Your task to perform on an android device: Open Android settings Image 0: 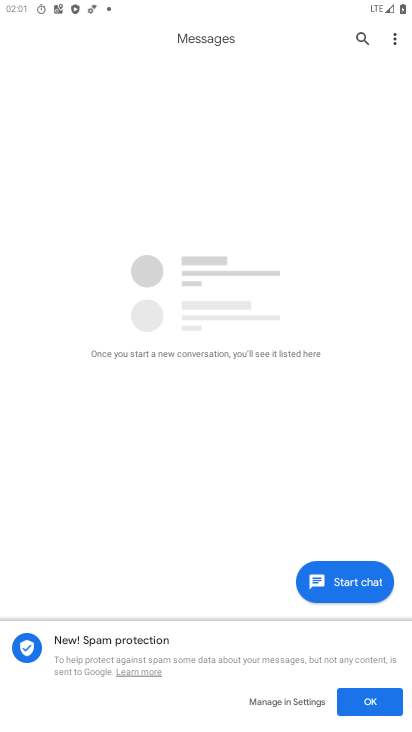
Step 0: press home button
Your task to perform on an android device: Open Android settings Image 1: 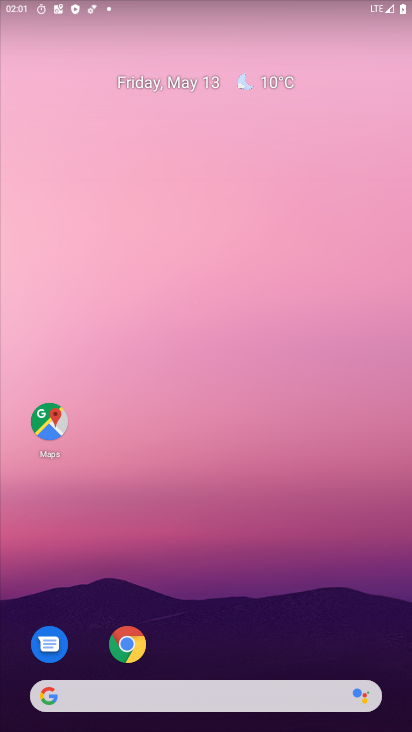
Step 1: drag from (230, 683) to (278, 101)
Your task to perform on an android device: Open Android settings Image 2: 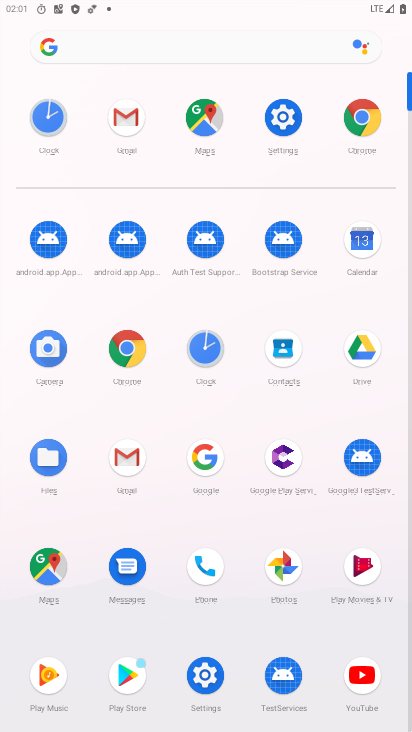
Step 2: click (283, 126)
Your task to perform on an android device: Open Android settings Image 3: 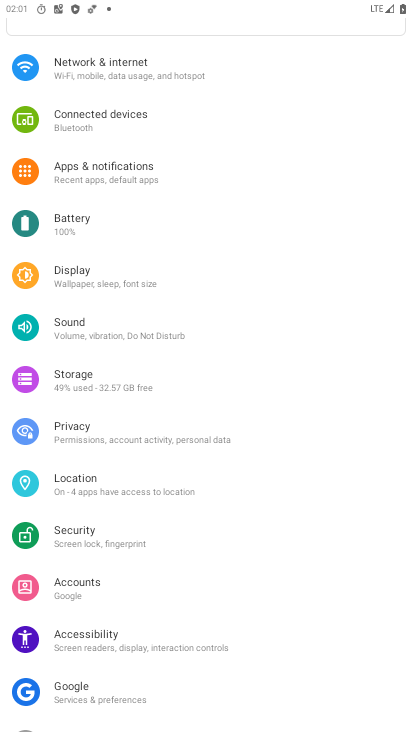
Step 3: drag from (182, 685) to (258, 123)
Your task to perform on an android device: Open Android settings Image 4: 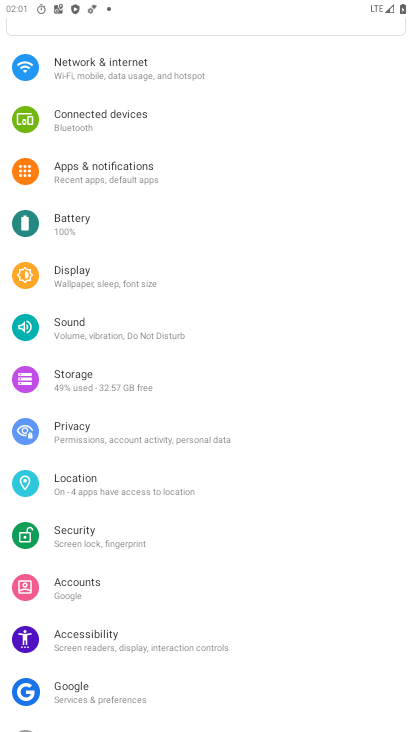
Step 4: drag from (150, 701) to (185, 270)
Your task to perform on an android device: Open Android settings Image 5: 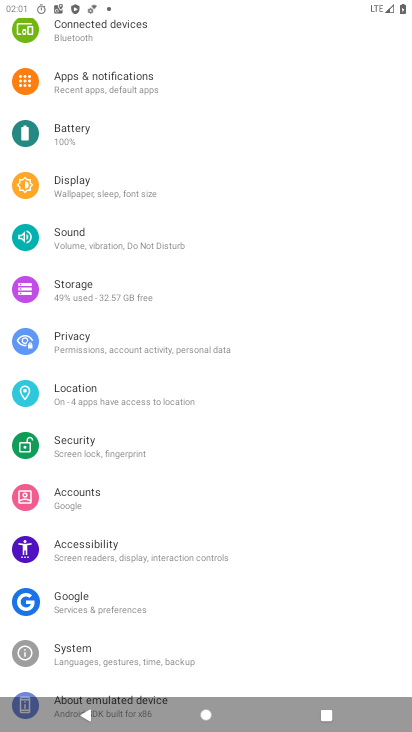
Step 5: click (174, 691)
Your task to perform on an android device: Open Android settings Image 6: 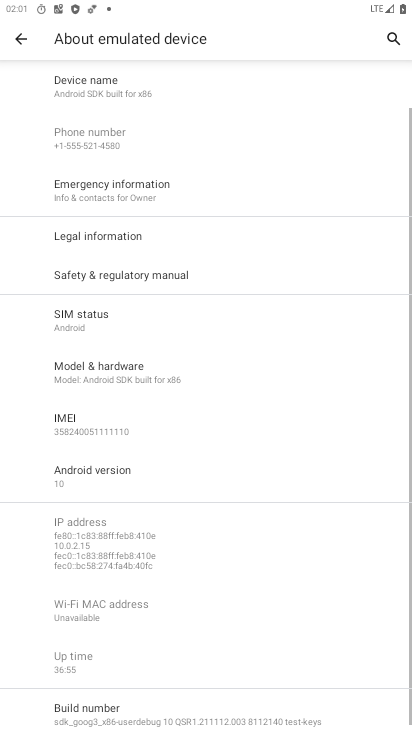
Step 6: drag from (107, 597) to (187, 70)
Your task to perform on an android device: Open Android settings Image 7: 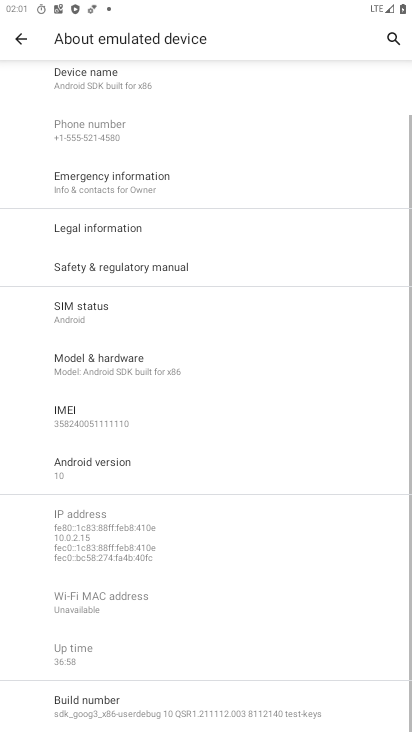
Step 7: click (124, 459)
Your task to perform on an android device: Open Android settings Image 8: 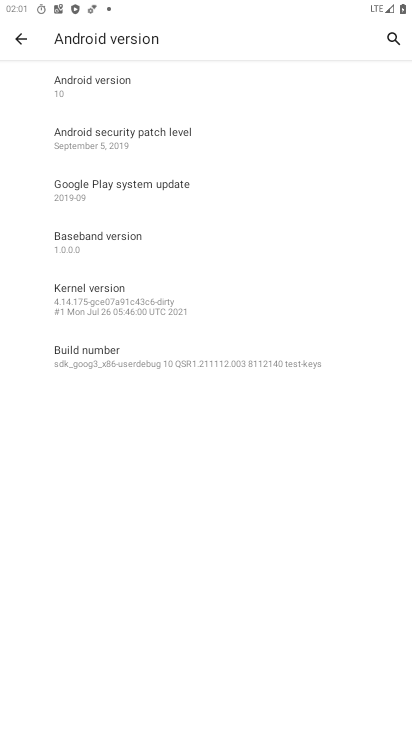
Step 8: task complete